Your task to perform on an android device: move an email to a new category in the gmail app Image 0: 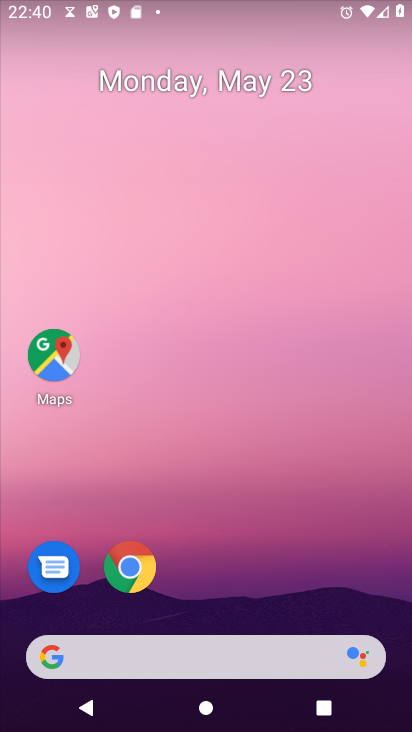
Step 0: drag from (291, 523) to (276, 253)
Your task to perform on an android device: move an email to a new category in the gmail app Image 1: 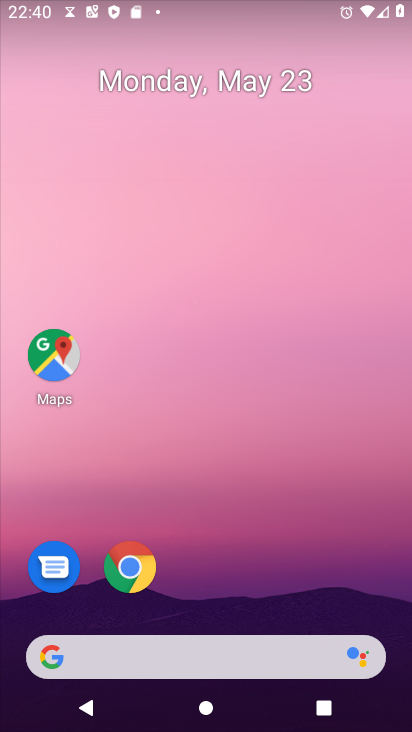
Step 1: drag from (251, 612) to (266, 269)
Your task to perform on an android device: move an email to a new category in the gmail app Image 2: 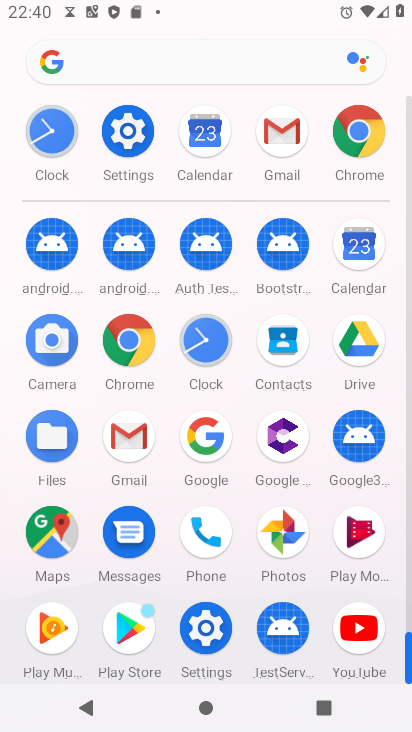
Step 2: click (278, 128)
Your task to perform on an android device: move an email to a new category in the gmail app Image 3: 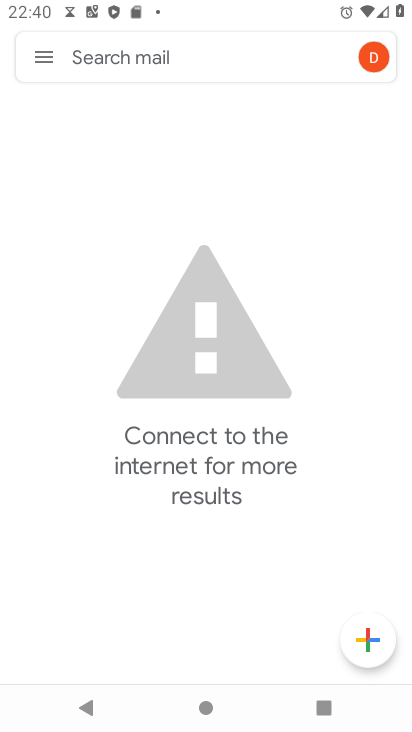
Step 3: click (31, 69)
Your task to perform on an android device: move an email to a new category in the gmail app Image 4: 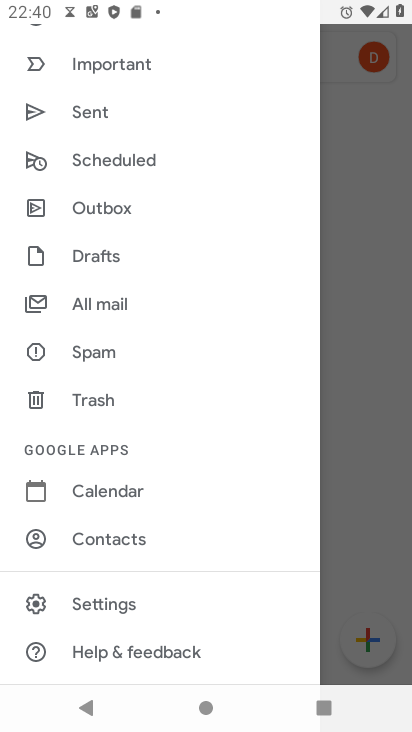
Step 4: click (104, 306)
Your task to perform on an android device: move an email to a new category in the gmail app Image 5: 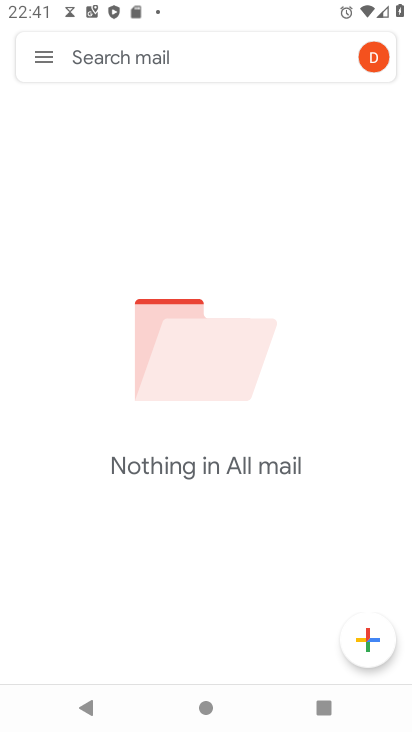
Step 5: task complete